Your task to perform on an android device: Check the weather Image 0: 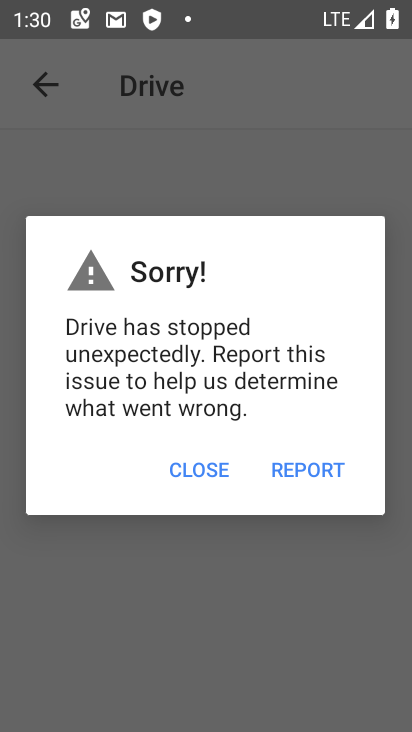
Step 0: press home button
Your task to perform on an android device: Check the weather Image 1: 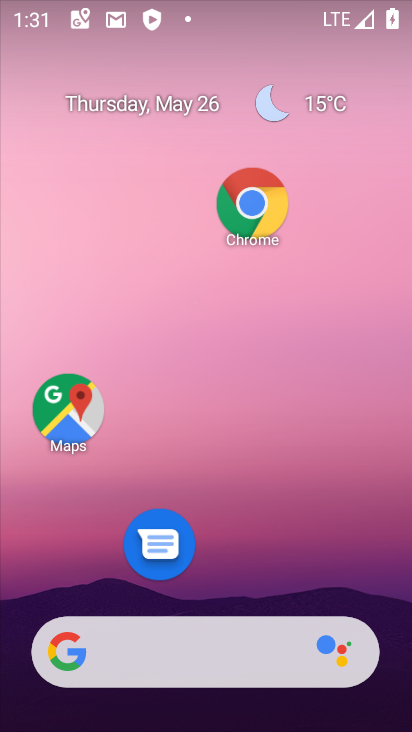
Step 1: click (176, 663)
Your task to perform on an android device: Check the weather Image 2: 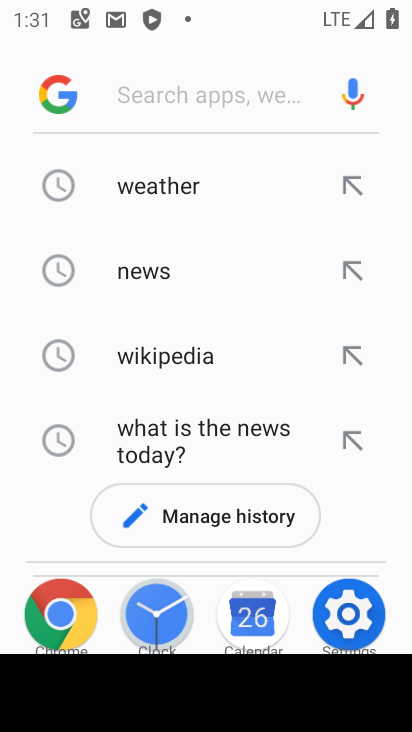
Step 2: click (143, 192)
Your task to perform on an android device: Check the weather Image 3: 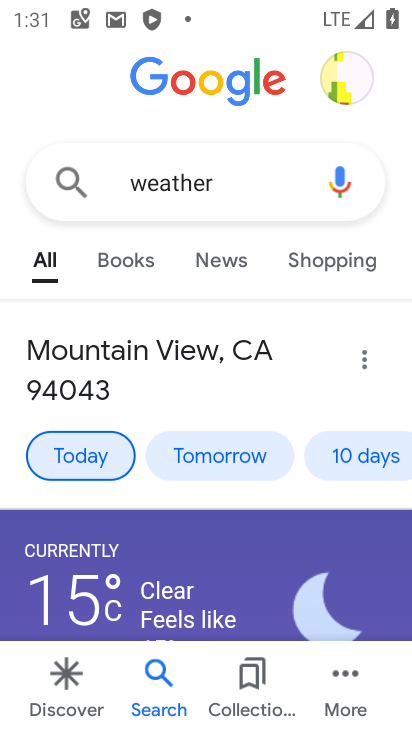
Step 3: task complete